Your task to perform on an android device: turn notification dots off Image 0: 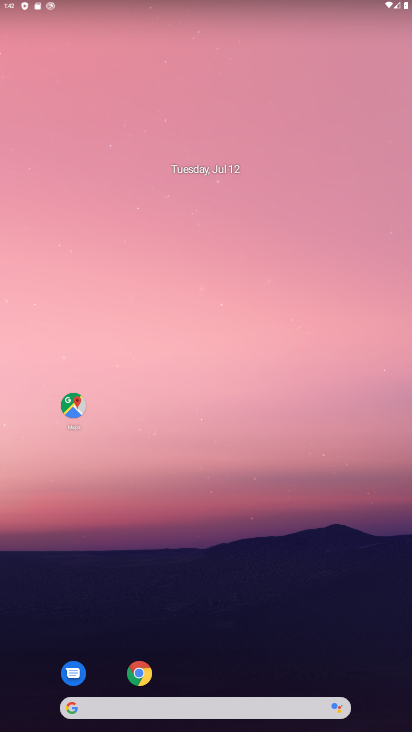
Step 0: drag from (180, 664) to (294, 215)
Your task to perform on an android device: turn notification dots off Image 1: 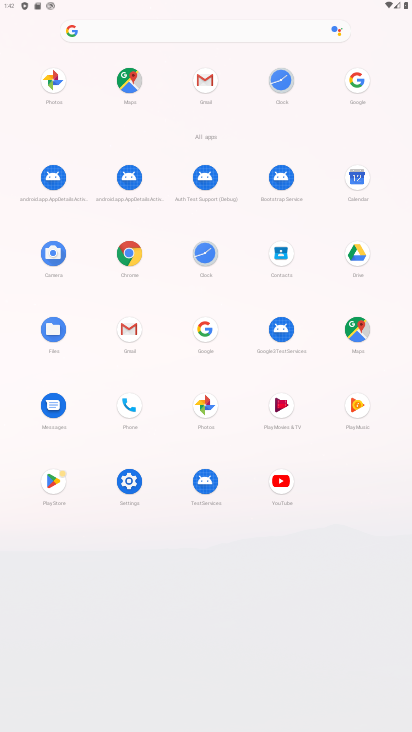
Step 1: click (133, 477)
Your task to perform on an android device: turn notification dots off Image 2: 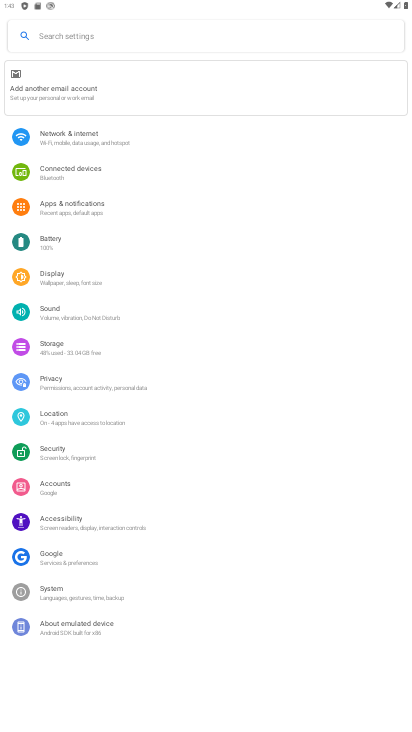
Step 2: click (104, 215)
Your task to perform on an android device: turn notification dots off Image 3: 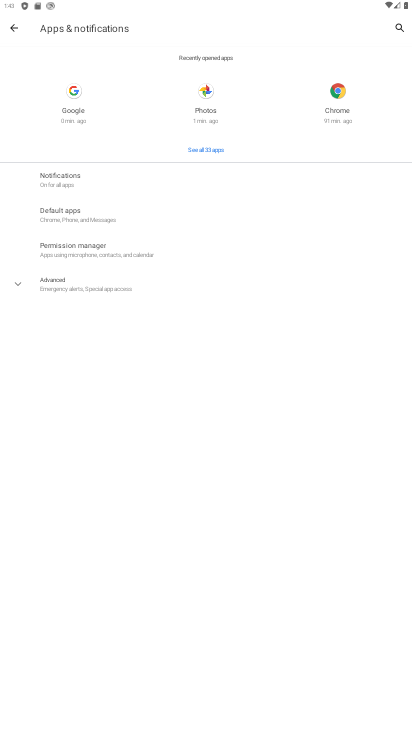
Step 3: click (93, 182)
Your task to perform on an android device: turn notification dots off Image 4: 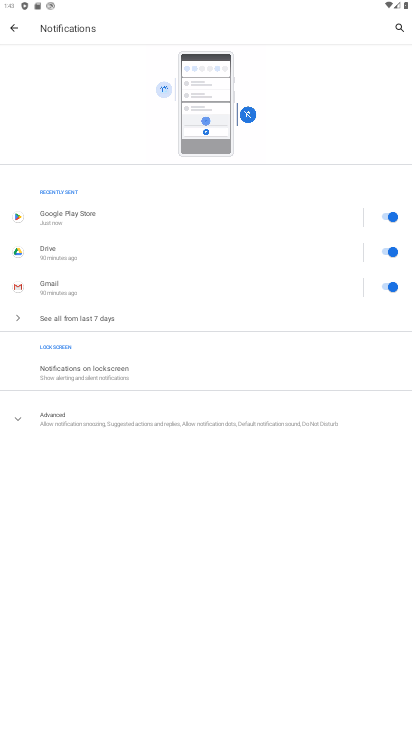
Step 4: click (124, 418)
Your task to perform on an android device: turn notification dots off Image 5: 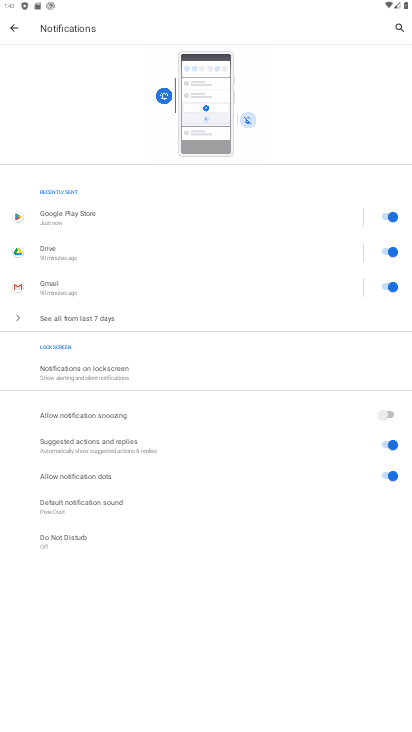
Step 5: click (387, 471)
Your task to perform on an android device: turn notification dots off Image 6: 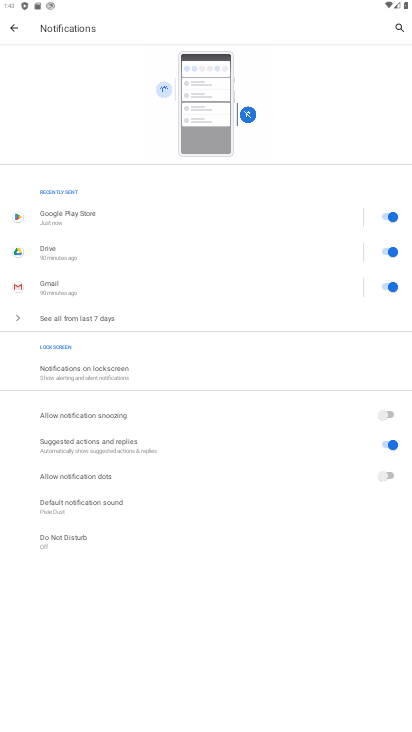
Step 6: task complete